Your task to perform on an android device: toggle wifi Image 0: 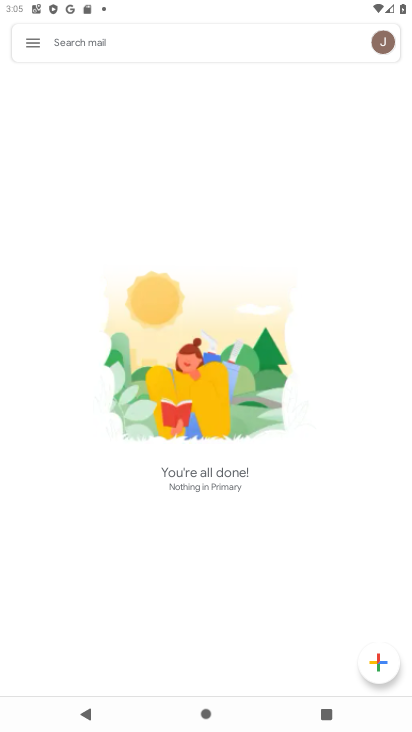
Step 0: press home button
Your task to perform on an android device: toggle wifi Image 1: 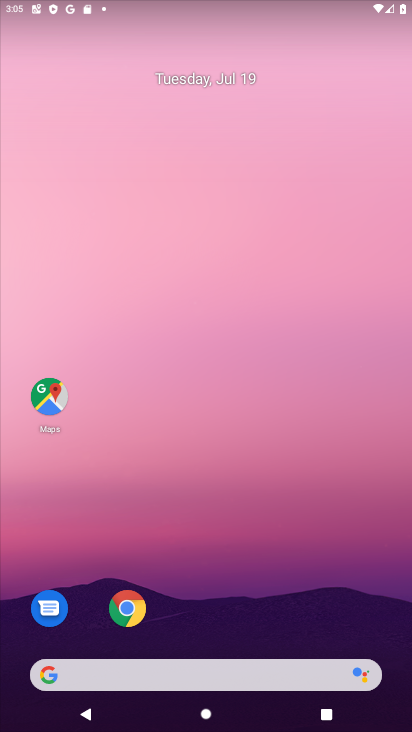
Step 1: drag from (263, 586) to (238, 41)
Your task to perform on an android device: toggle wifi Image 2: 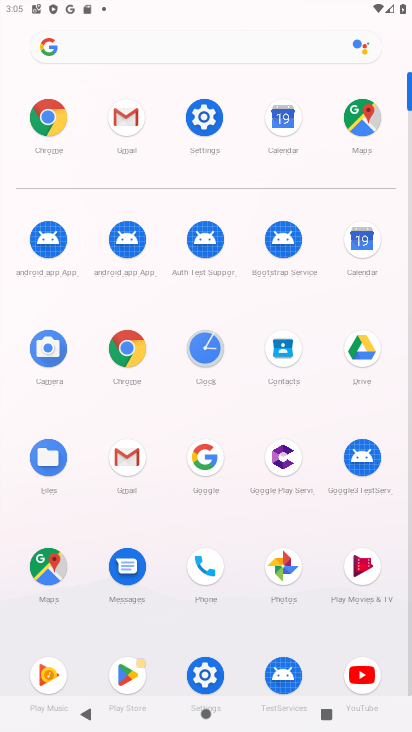
Step 2: click (215, 114)
Your task to perform on an android device: toggle wifi Image 3: 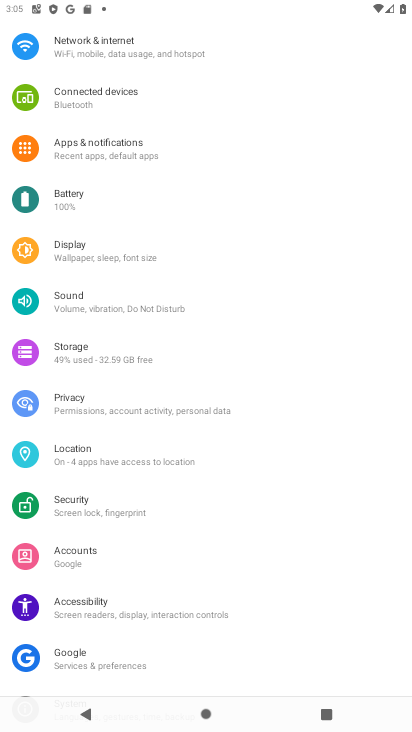
Step 3: click (111, 57)
Your task to perform on an android device: toggle wifi Image 4: 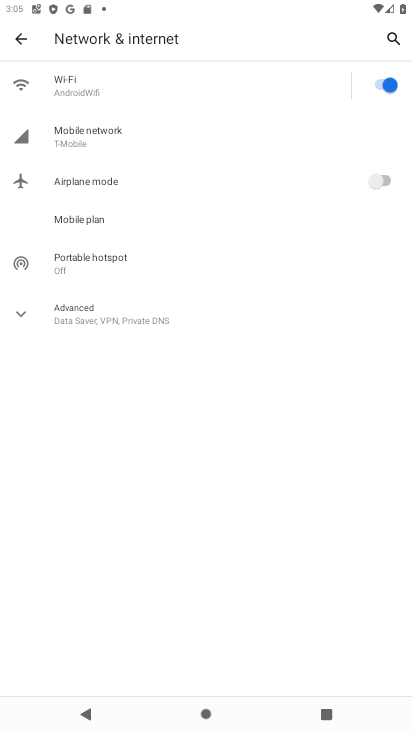
Step 4: click (382, 77)
Your task to perform on an android device: toggle wifi Image 5: 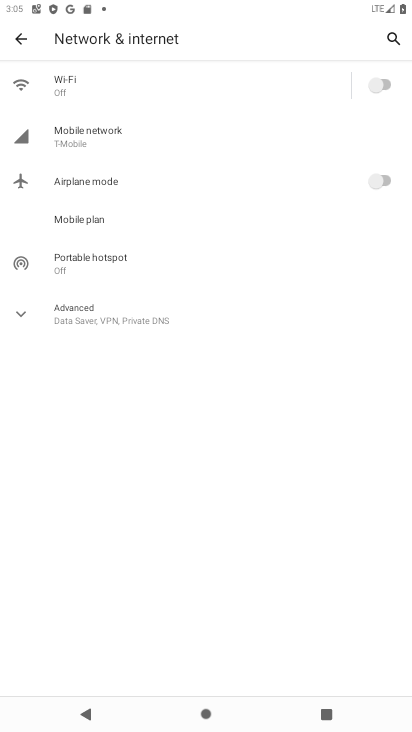
Step 5: task complete